Your task to perform on an android device: View the shopping cart on target. Search for lg ultragear on target, select the first entry, add it to the cart, then select checkout. Image 0: 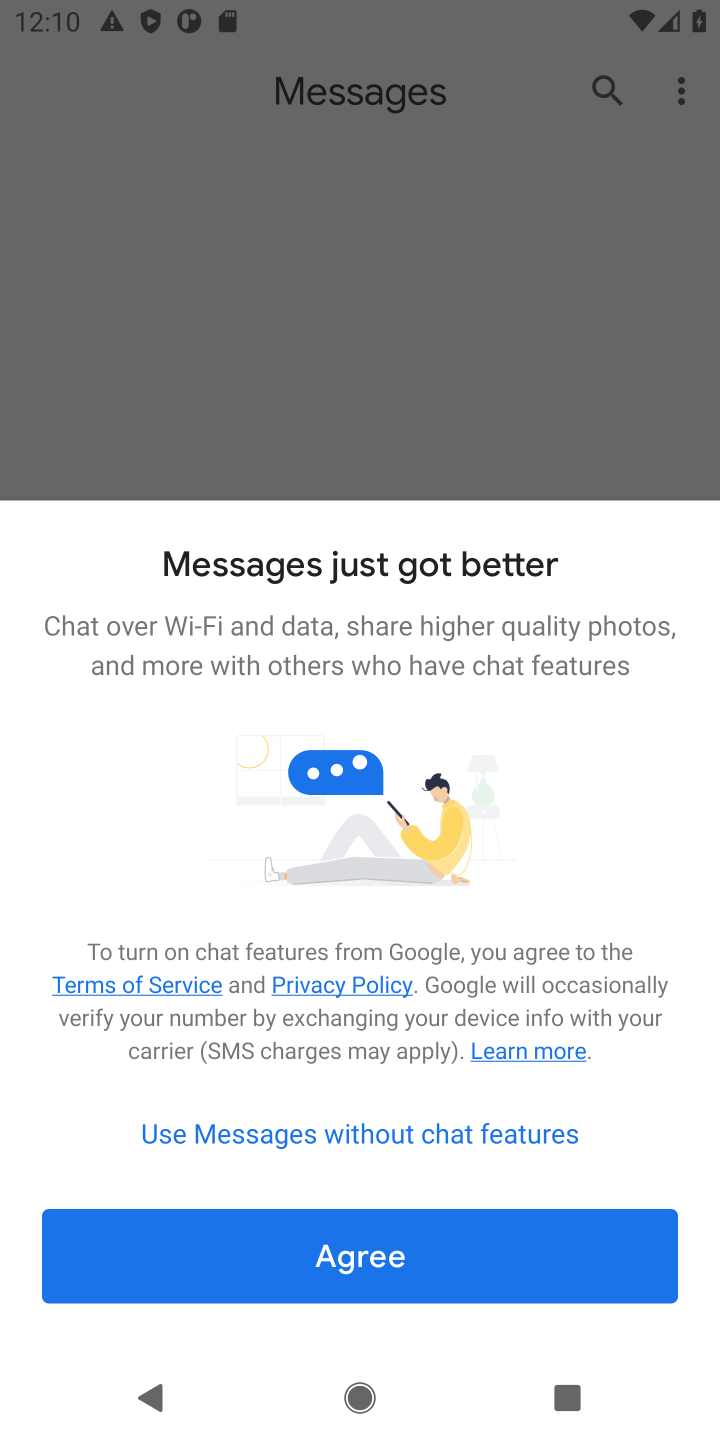
Step 0: press home button
Your task to perform on an android device: View the shopping cart on target. Search for lg ultragear on target, select the first entry, add it to the cart, then select checkout. Image 1: 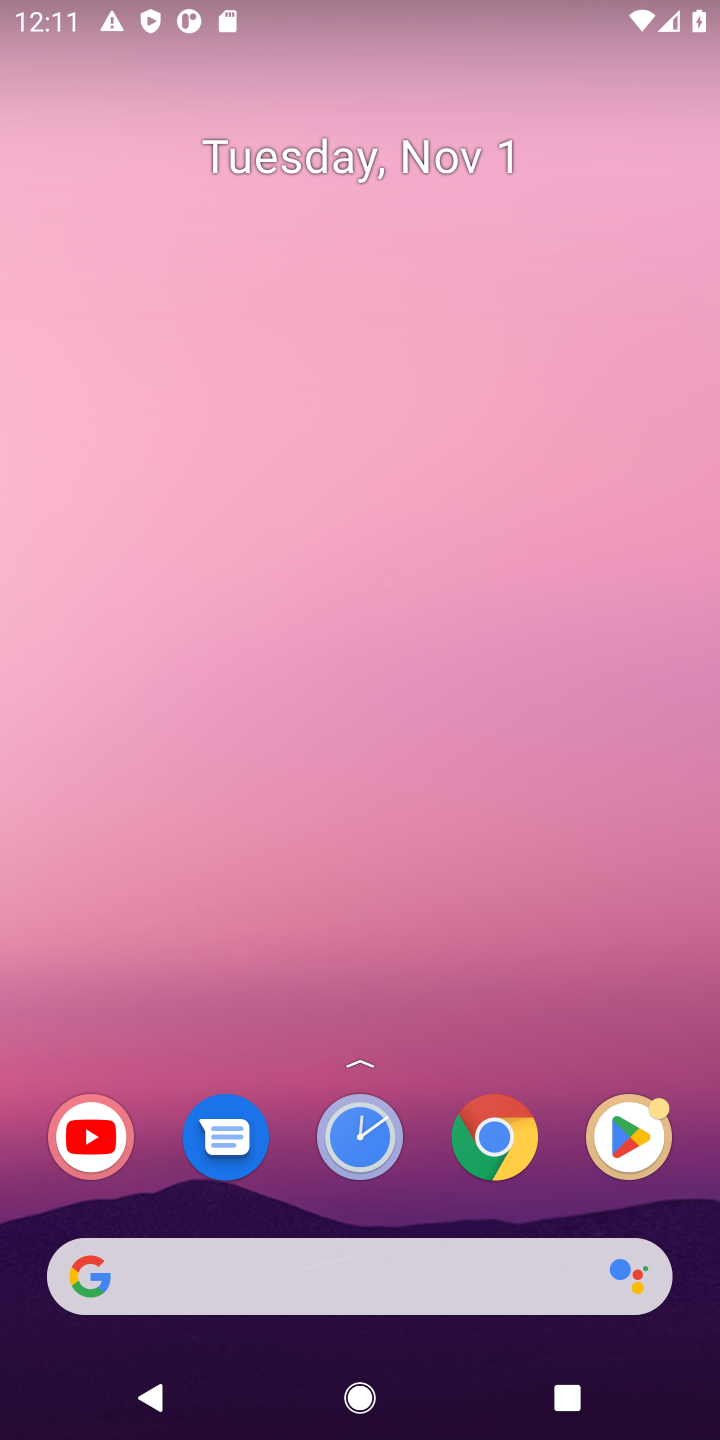
Step 1: click (491, 1136)
Your task to perform on an android device: View the shopping cart on target. Search for lg ultragear on target, select the first entry, add it to the cart, then select checkout. Image 2: 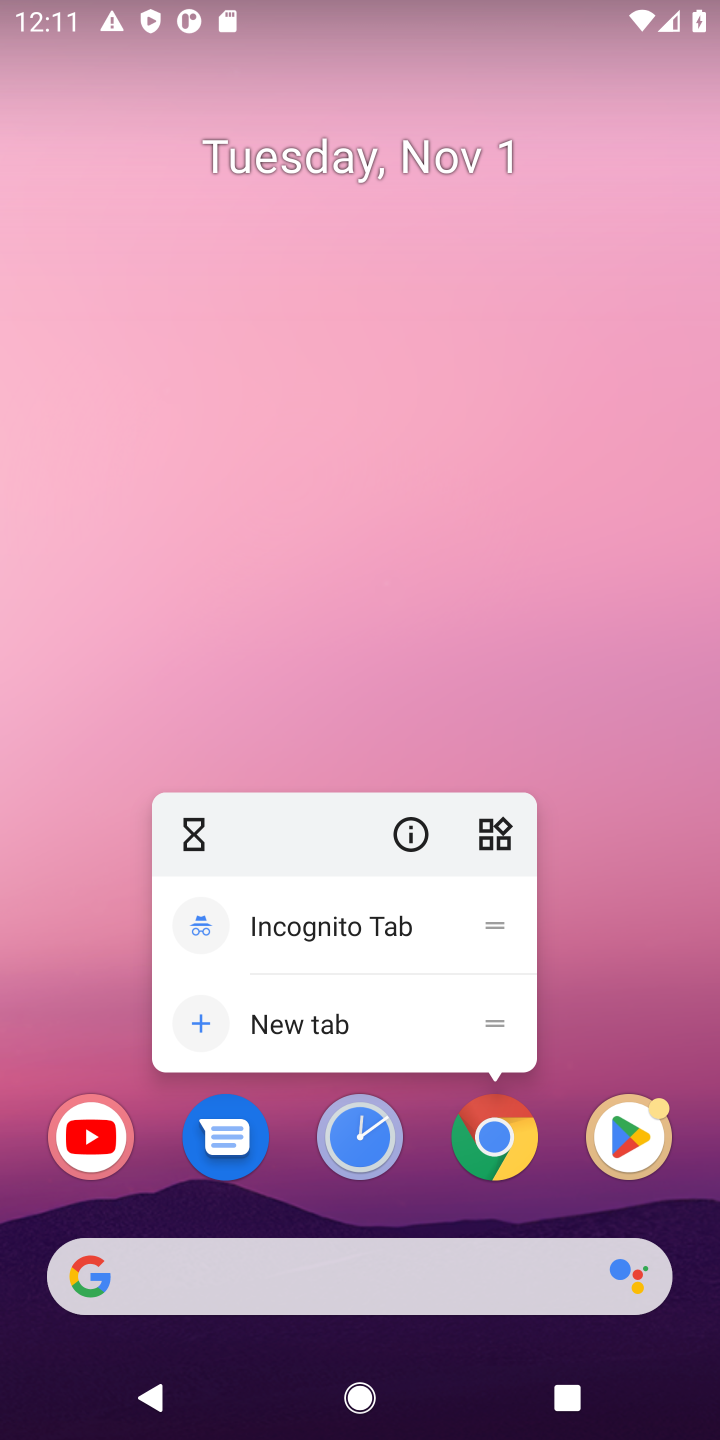
Step 2: click (491, 1128)
Your task to perform on an android device: View the shopping cart on target. Search for lg ultragear on target, select the first entry, add it to the cart, then select checkout. Image 3: 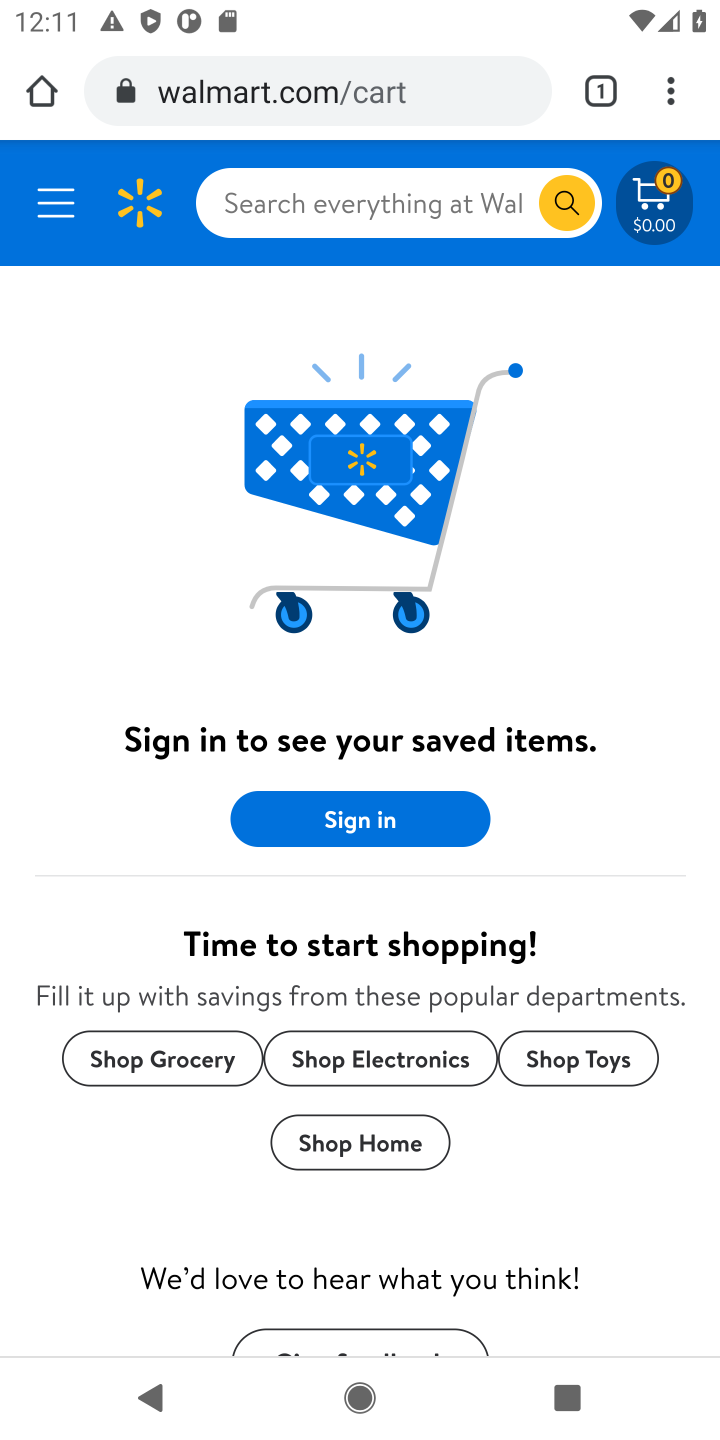
Step 3: click (612, 83)
Your task to perform on an android device: View the shopping cart on target. Search for lg ultragear on target, select the first entry, add it to the cart, then select checkout. Image 4: 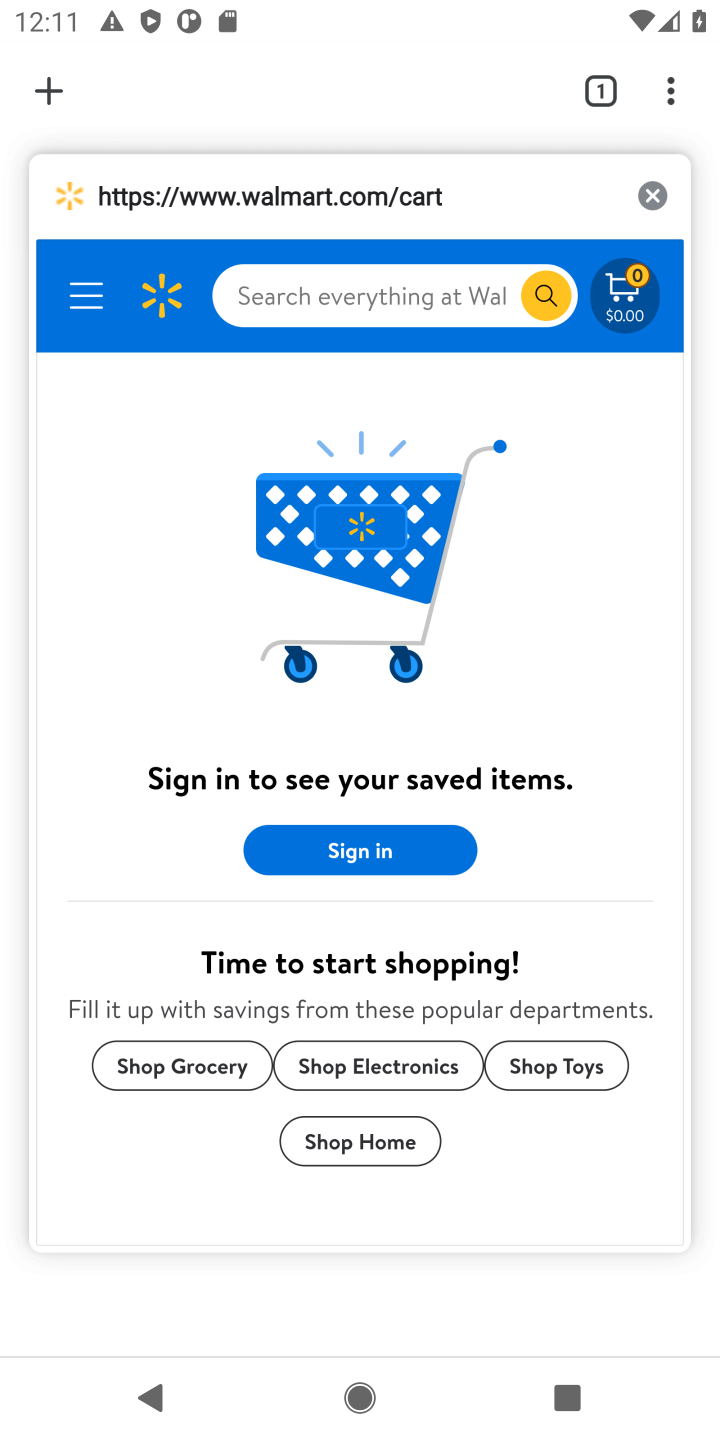
Step 4: click (45, 96)
Your task to perform on an android device: View the shopping cart on target. Search for lg ultragear on target, select the first entry, add it to the cart, then select checkout. Image 5: 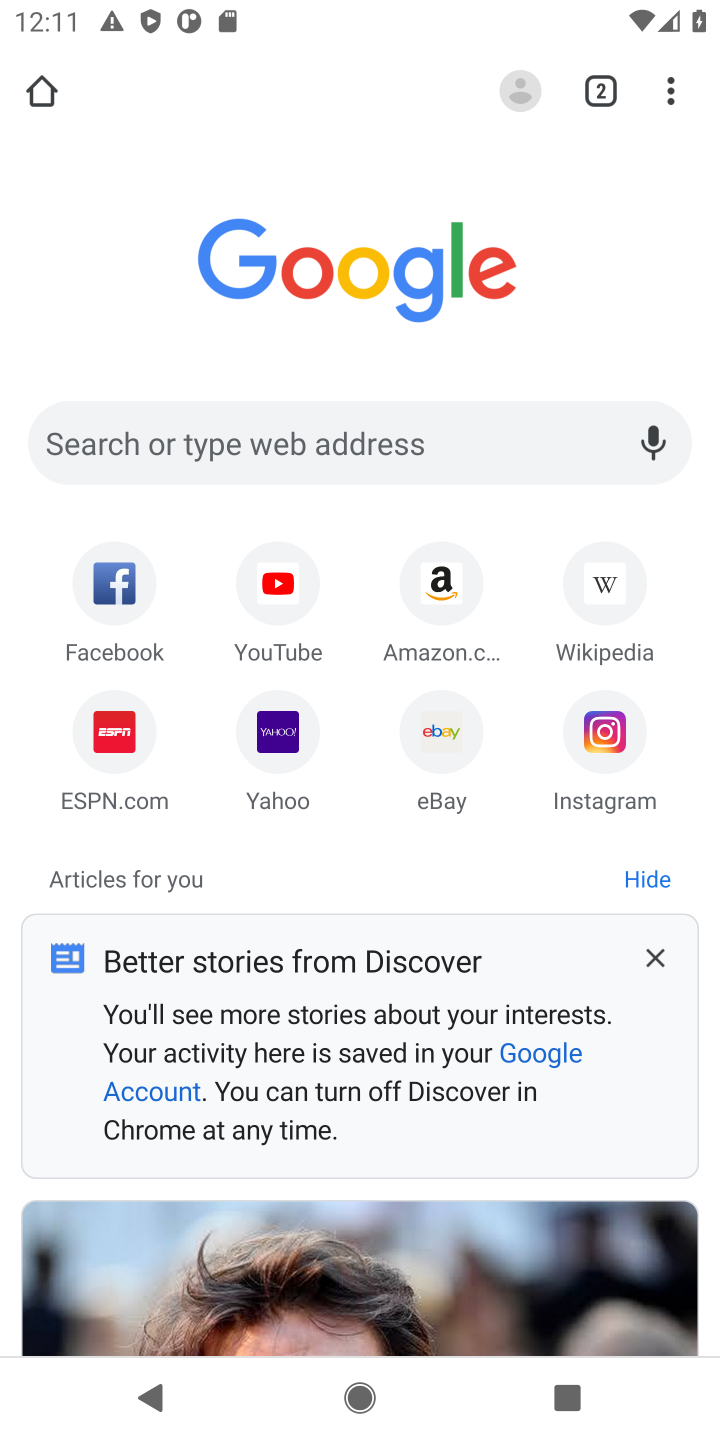
Step 5: click (353, 457)
Your task to perform on an android device: View the shopping cart on target. Search for lg ultragear on target, select the first entry, add it to the cart, then select checkout. Image 6: 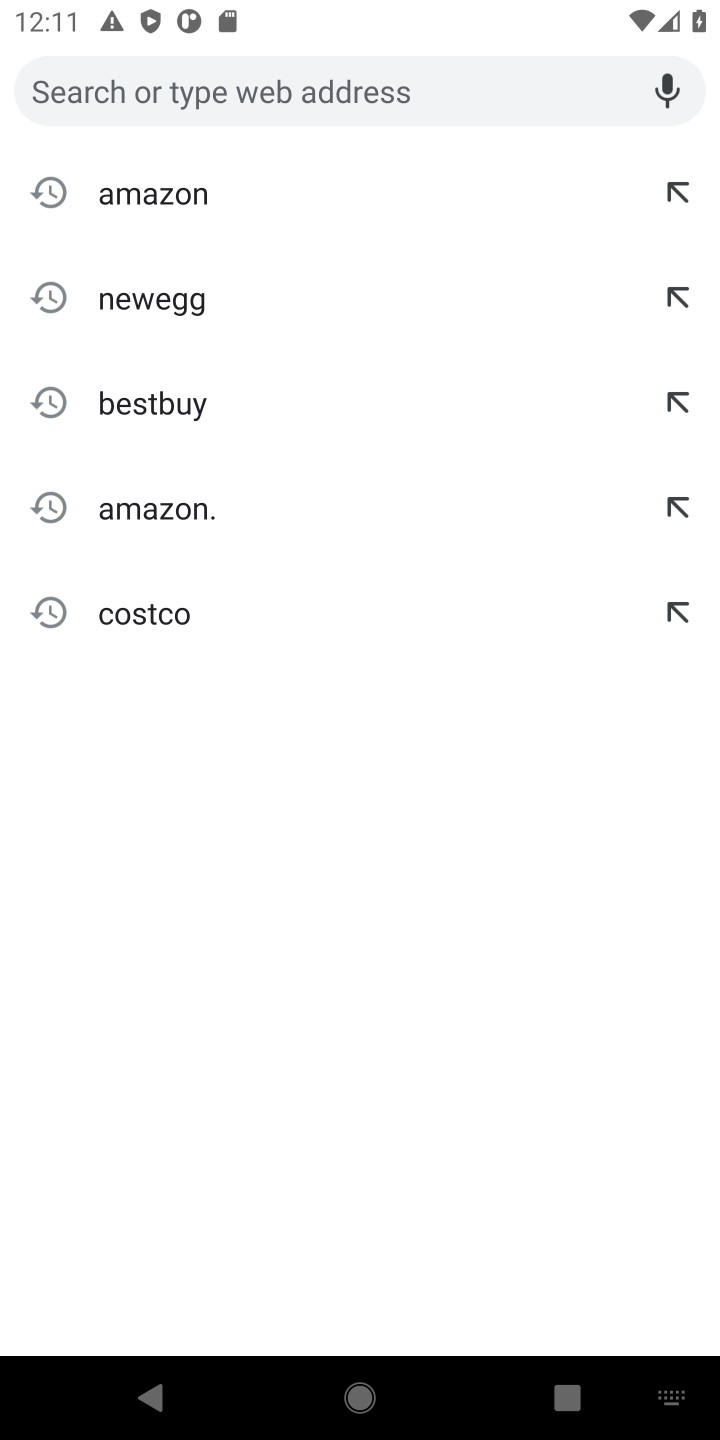
Step 6: type "target"
Your task to perform on an android device: View the shopping cart on target. Search for lg ultragear on target, select the first entry, add it to the cart, then select checkout. Image 7: 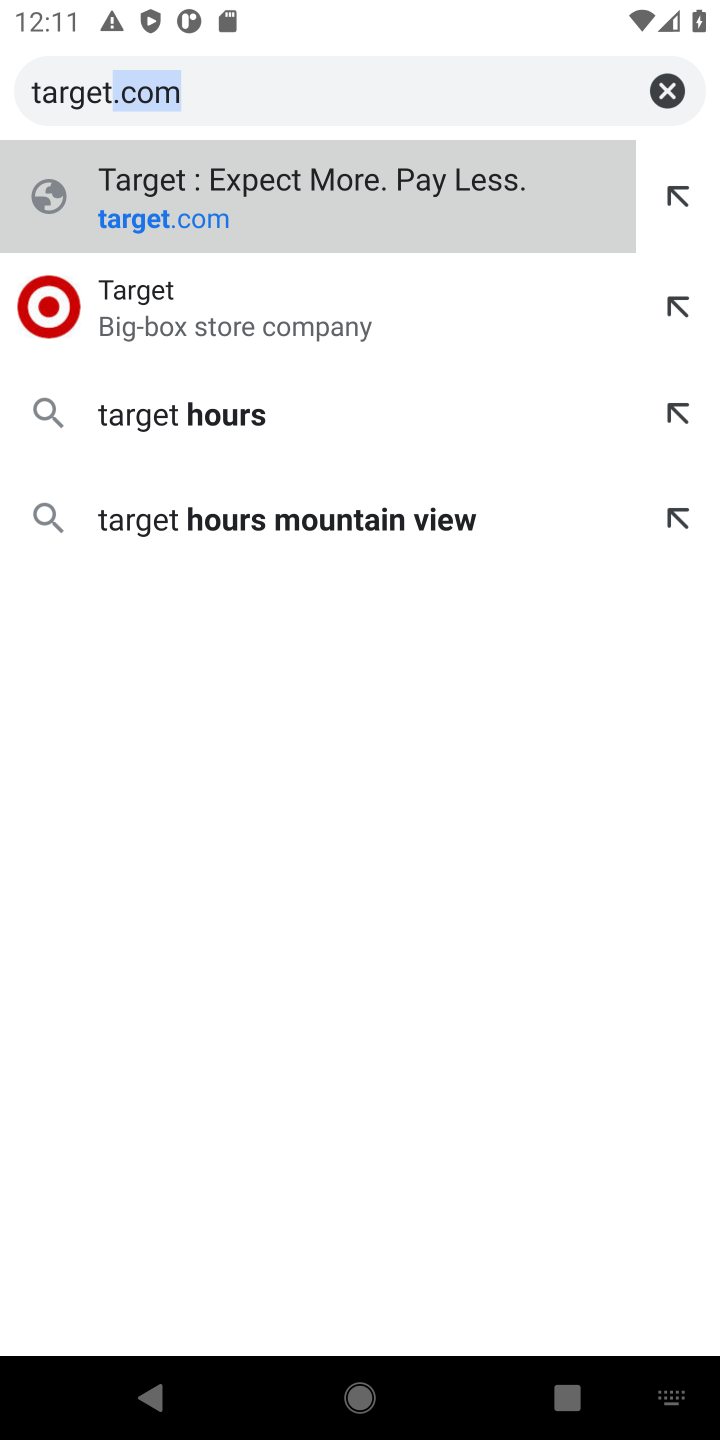
Step 7: click (305, 221)
Your task to perform on an android device: View the shopping cart on target. Search for lg ultragear on target, select the first entry, add it to the cart, then select checkout. Image 8: 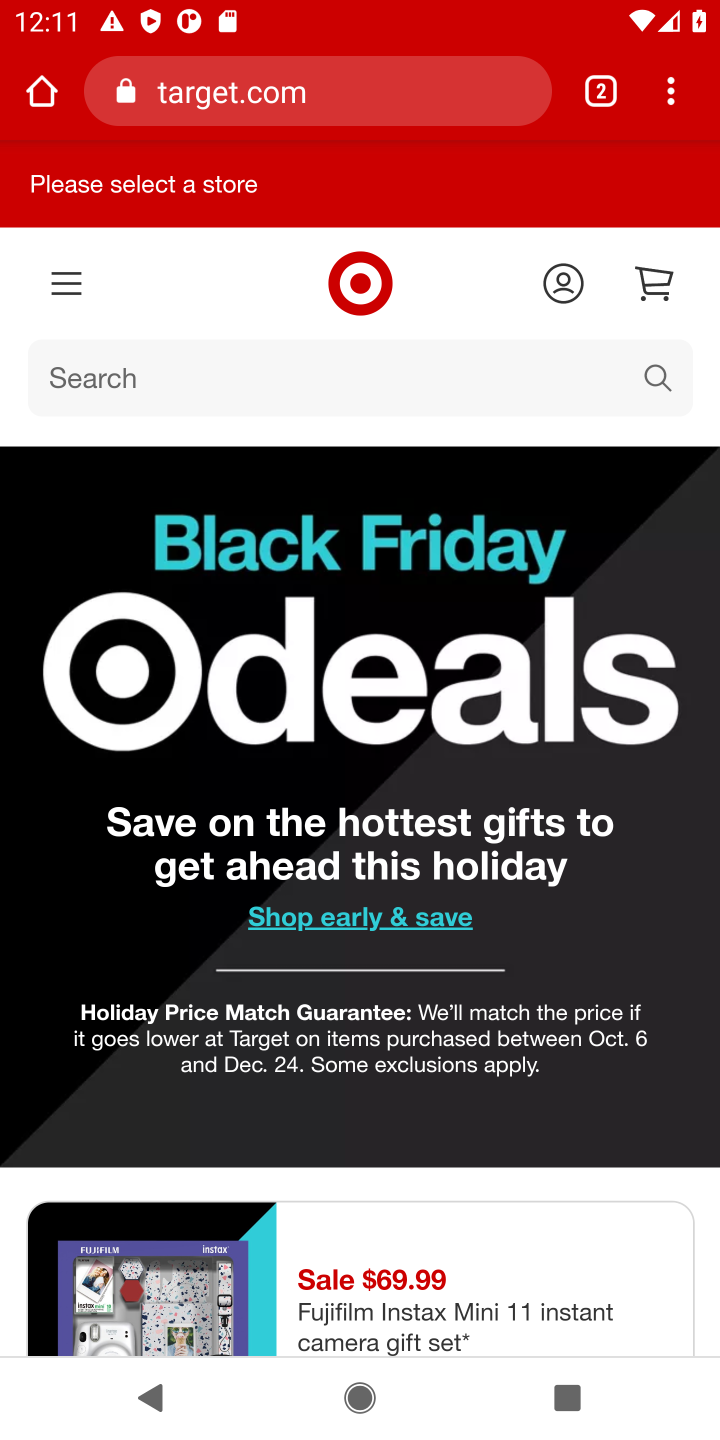
Step 8: click (397, 393)
Your task to perform on an android device: View the shopping cart on target. Search for lg ultragear on target, select the first entry, add it to the cart, then select checkout. Image 9: 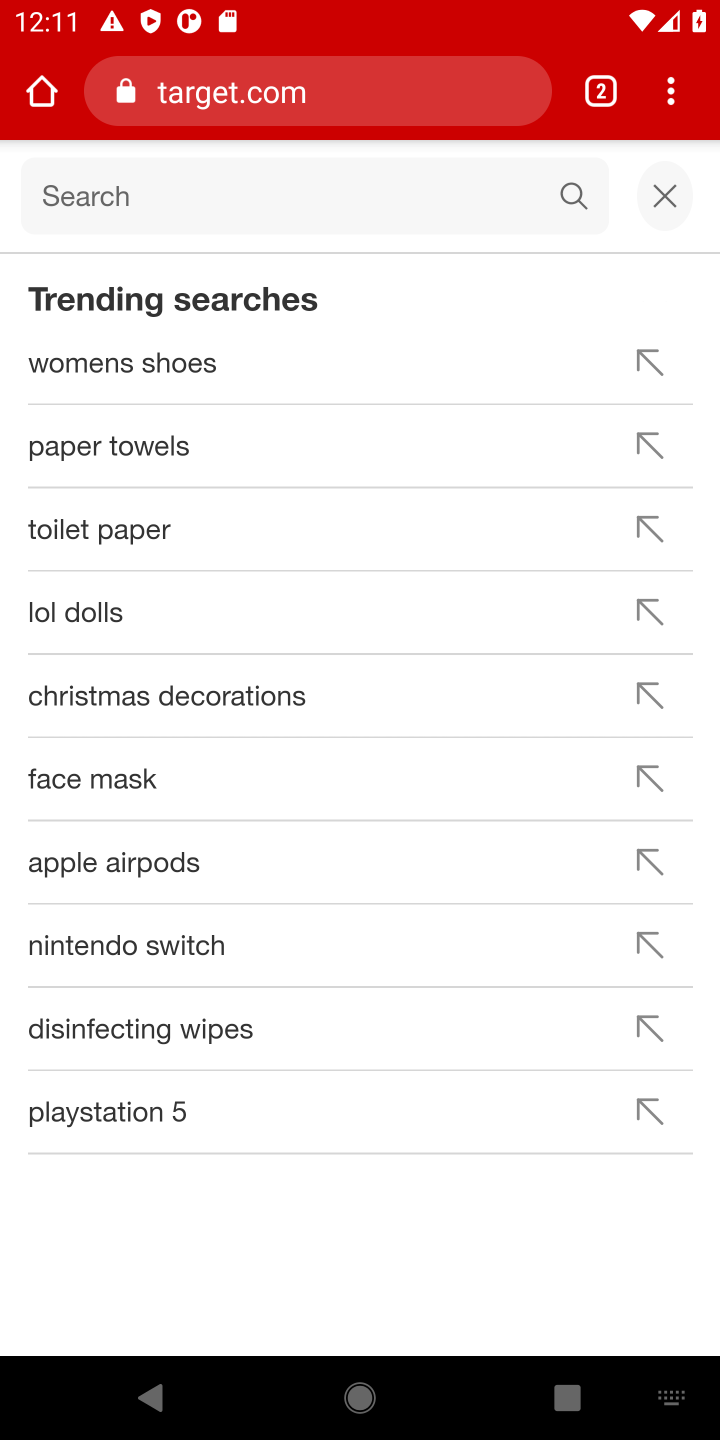
Step 9: type "lg ultragear"
Your task to perform on an android device: View the shopping cart on target. Search for lg ultragear on target, select the first entry, add it to the cart, then select checkout. Image 10: 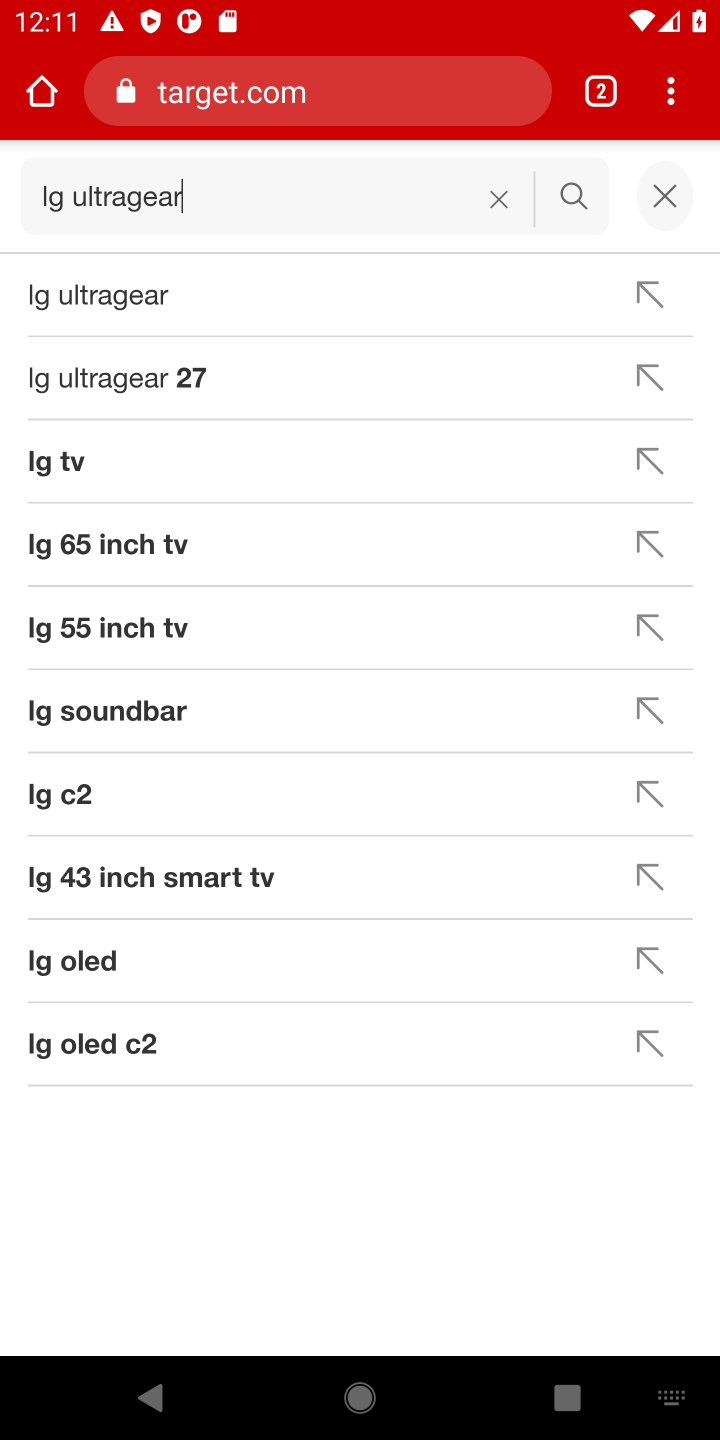
Step 10: click (147, 289)
Your task to perform on an android device: View the shopping cart on target. Search for lg ultragear on target, select the first entry, add it to the cart, then select checkout. Image 11: 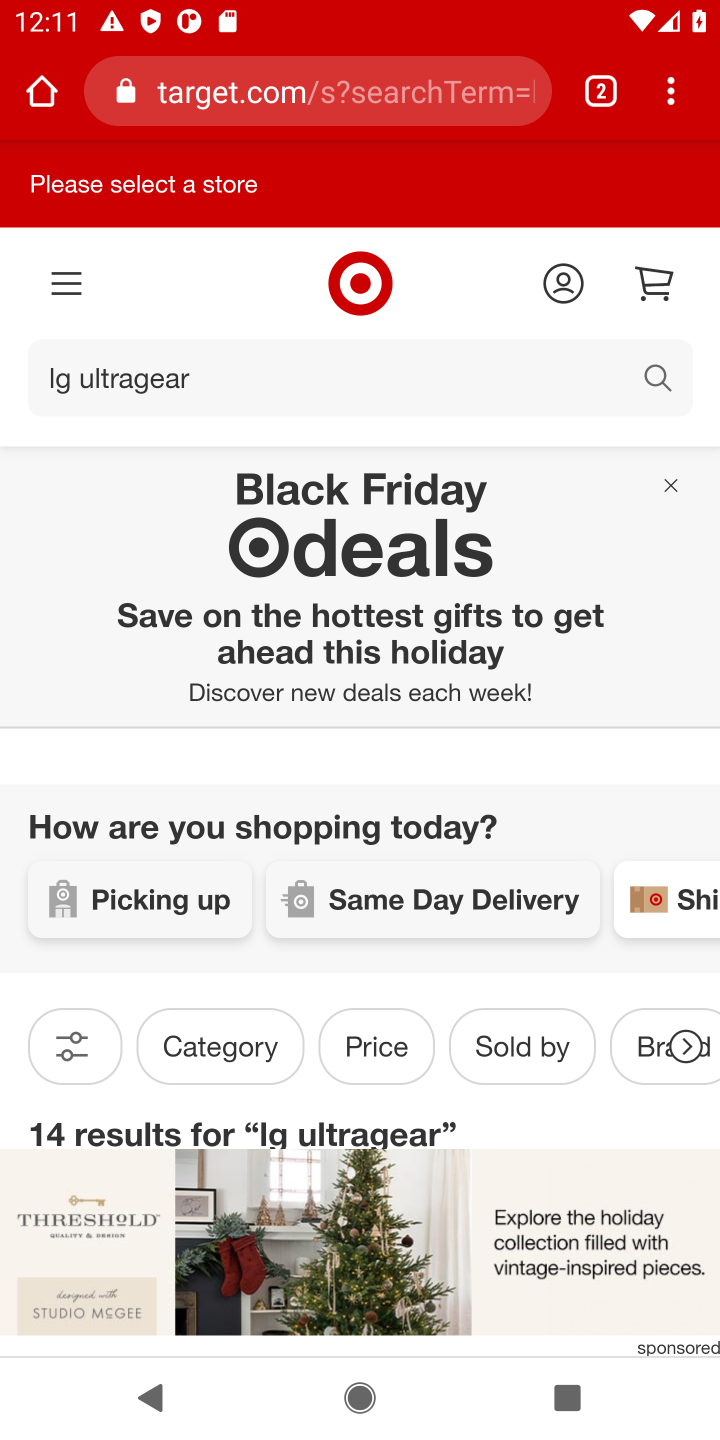
Step 11: drag from (284, 1105) to (295, 196)
Your task to perform on an android device: View the shopping cart on target. Search for lg ultragear on target, select the first entry, add it to the cart, then select checkout. Image 12: 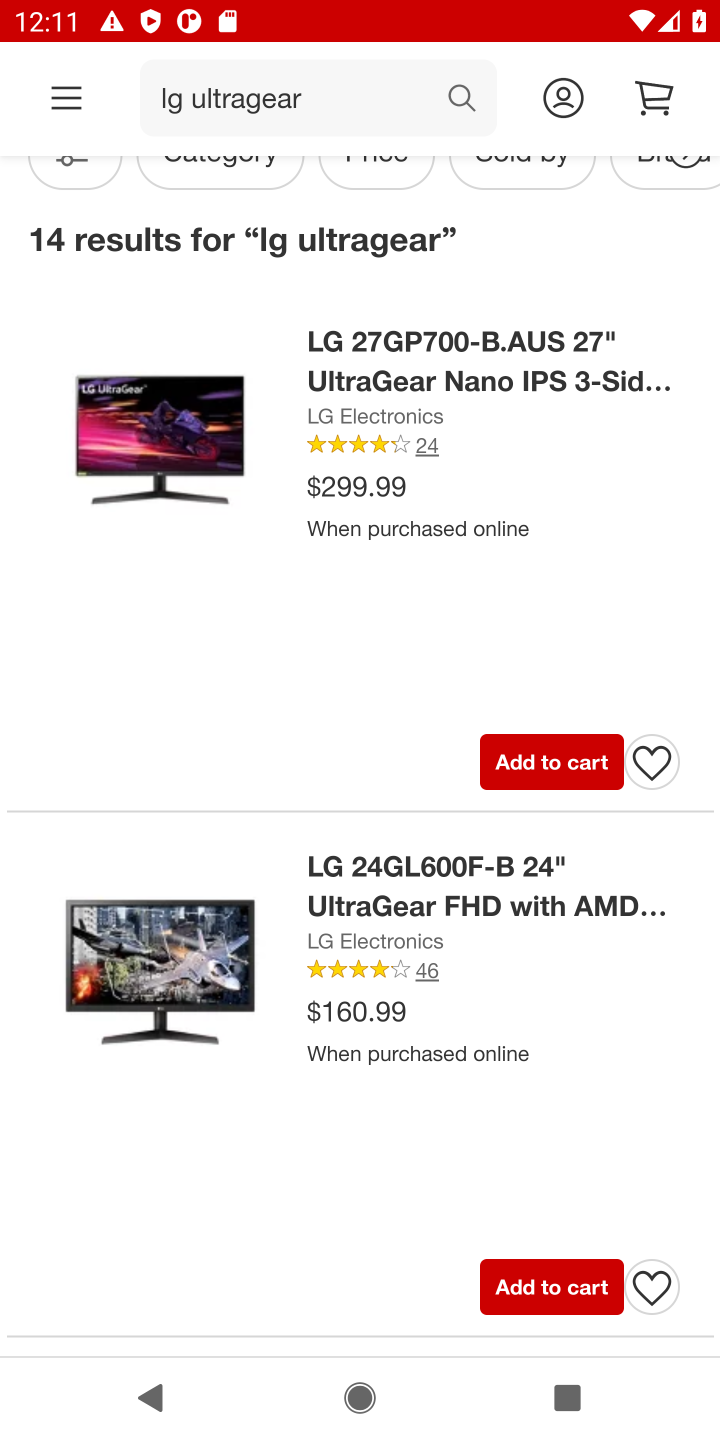
Step 12: click (540, 771)
Your task to perform on an android device: View the shopping cart on target. Search for lg ultragear on target, select the first entry, add it to the cart, then select checkout. Image 13: 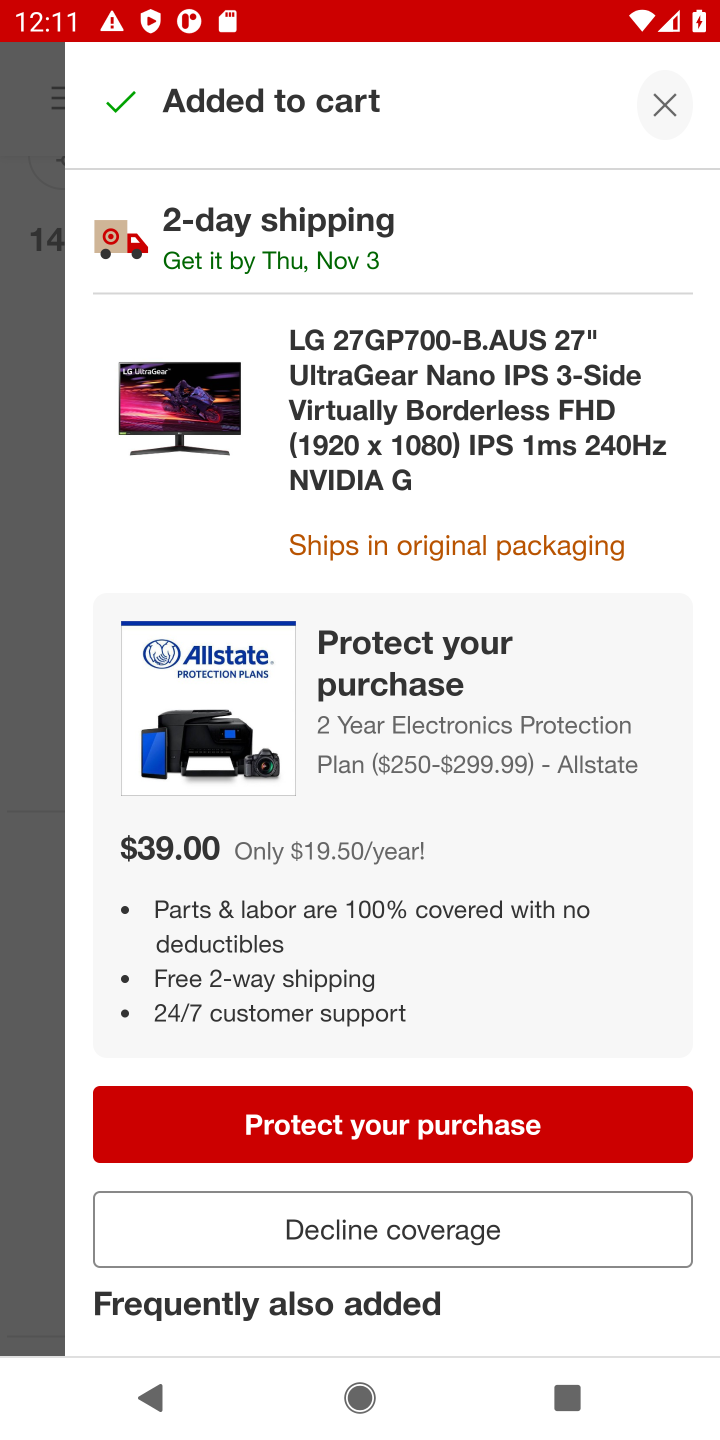
Step 13: click (429, 1234)
Your task to perform on an android device: View the shopping cart on target. Search for lg ultragear on target, select the first entry, add it to the cart, then select checkout. Image 14: 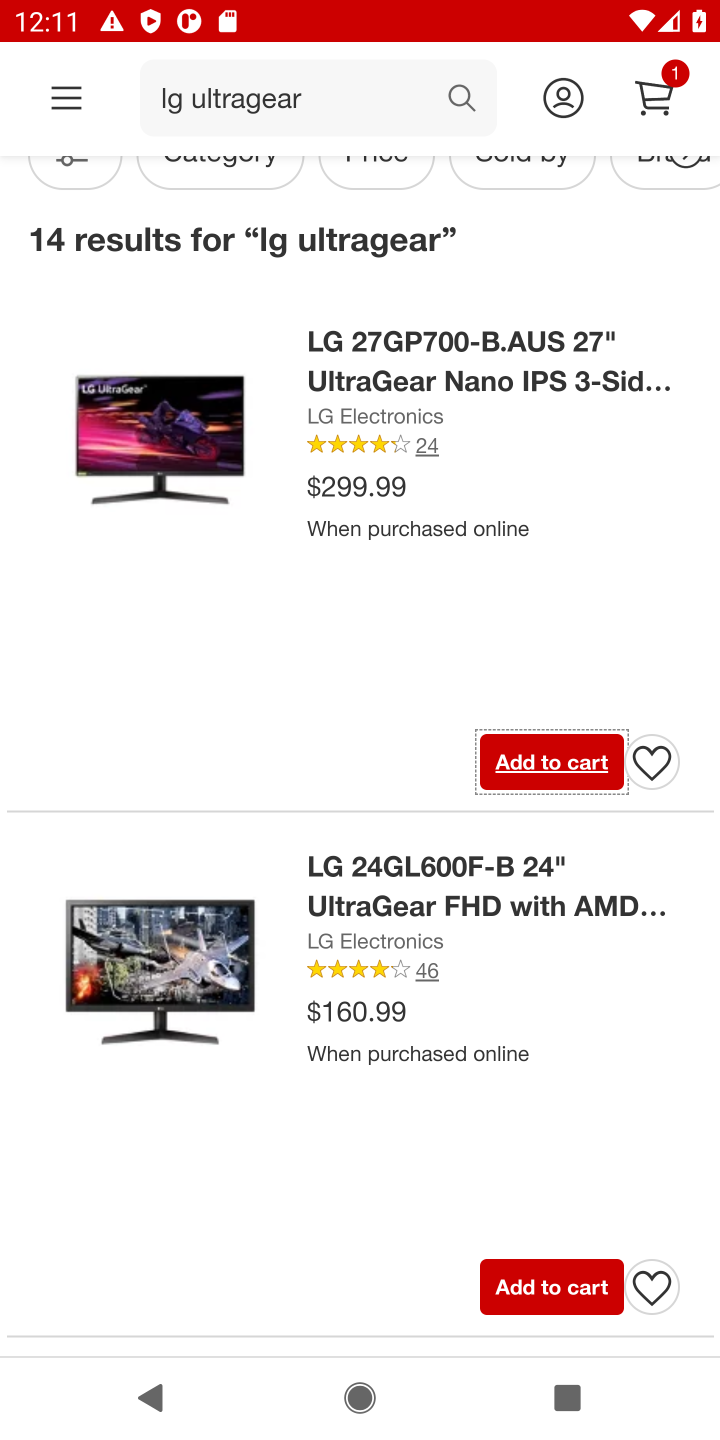
Step 14: task complete